Your task to perform on an android device: Open maps Image 0: 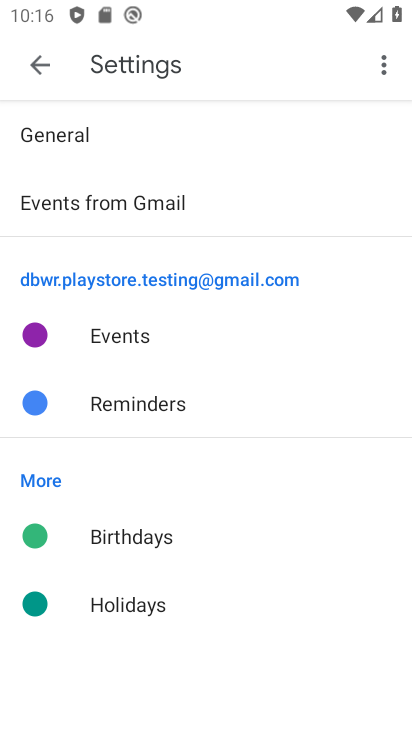
Step 0: press home button
Your task to perform on an android device: Open maps Image 1: 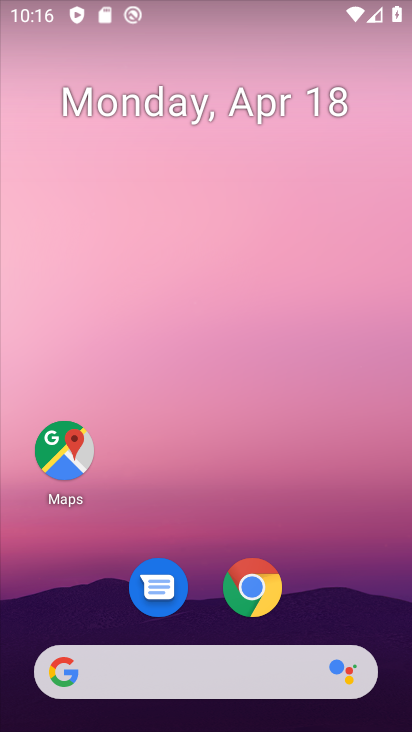
Step 1: drag from (336, 571) to (344, 114)
Your task to perform on an android device: Open maps Image 2: 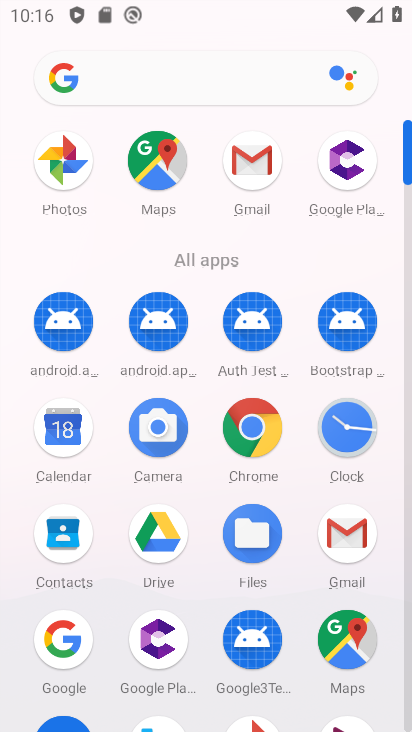
Step 2: click (340, 651)
Your task to perform on an android device: Open maps Image 3: 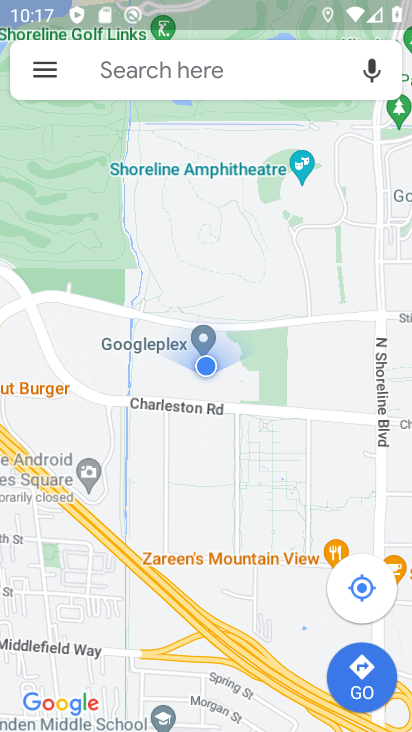
Step 3: task complete